Your task to perform on an android device: open sync settings in chrome Image 0: 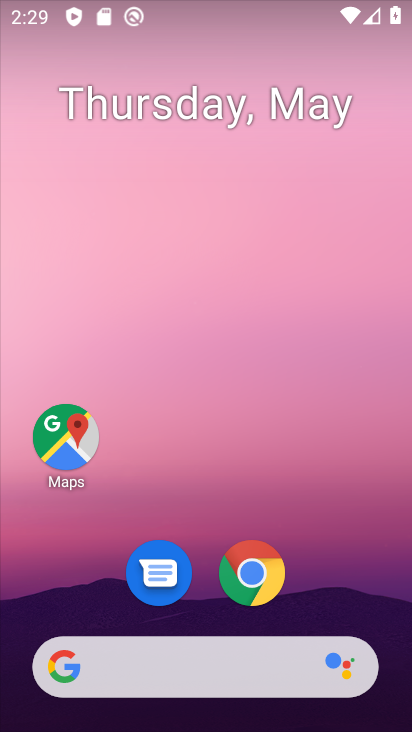
Step 0: click (249, 577)
Your task to perform on an android device: open sync settings in chrome Image 1: 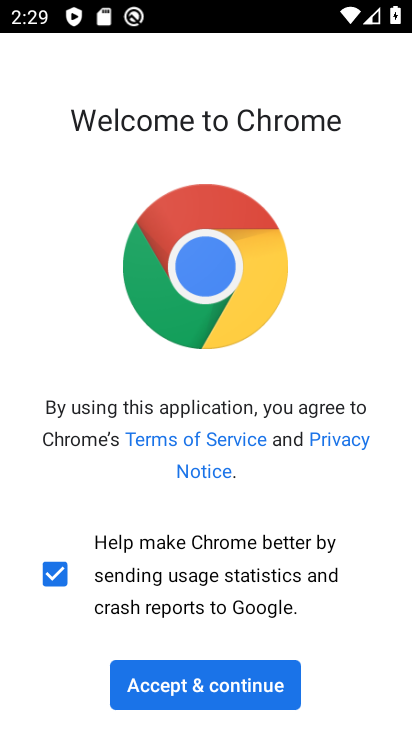
Step 1: click (224, 682)
Your task to perform on an android device: open sync settings in chrome Image 2: 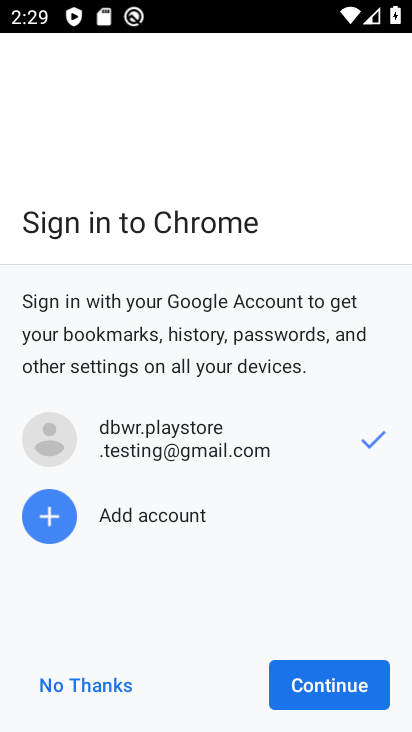
Step 2: click (337, 693)
Your task to perform on an android device: open sync settings in chrome Image 3: 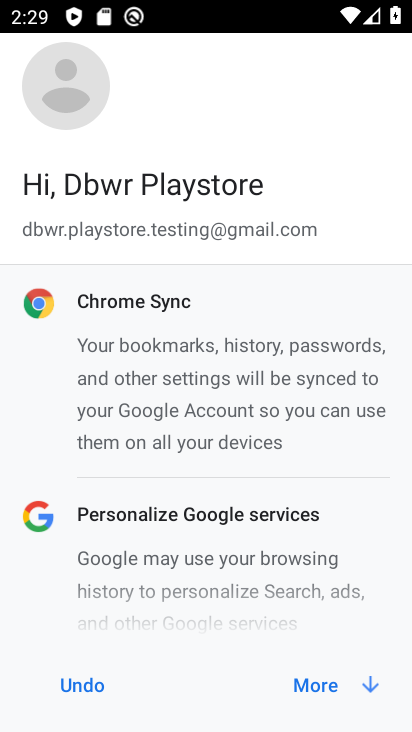
Step 3: click (337, 693)
Your task to perform on an android device: open sync settings in chrome Image 4: 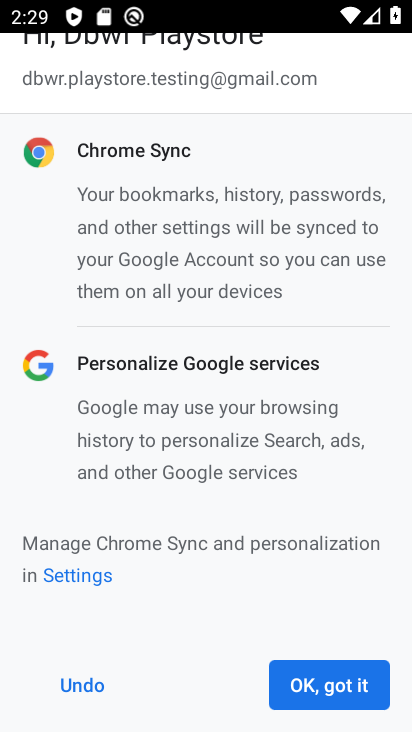
Step 4: click (337, 693)
Your task to perform on an android device: open sync settings in chrome Image 5: 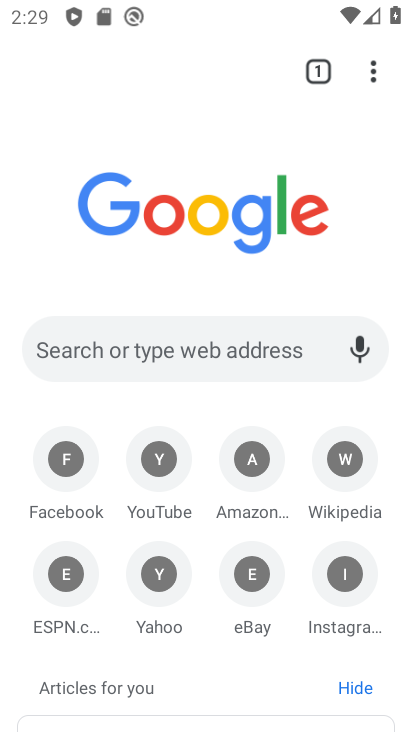
Step 5: click (372, 75)
Your task to perform on an android device: open sync settings in chrome Image 6: 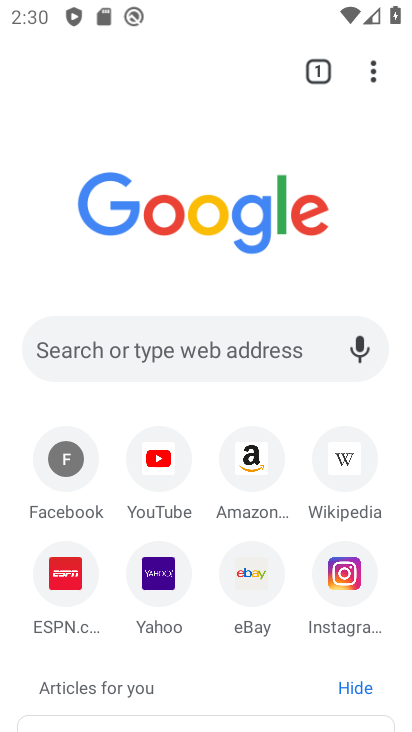
Step 6: click (372, 71)
Your task to perform on an android device: open sync settings in chrome Image 7: 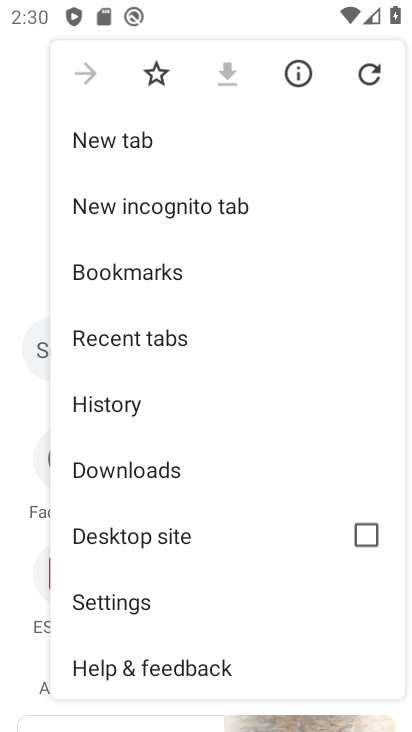
Step 7: click (98, 606)
Your task to perform on an android device: open sync settings in chrome Image 8: 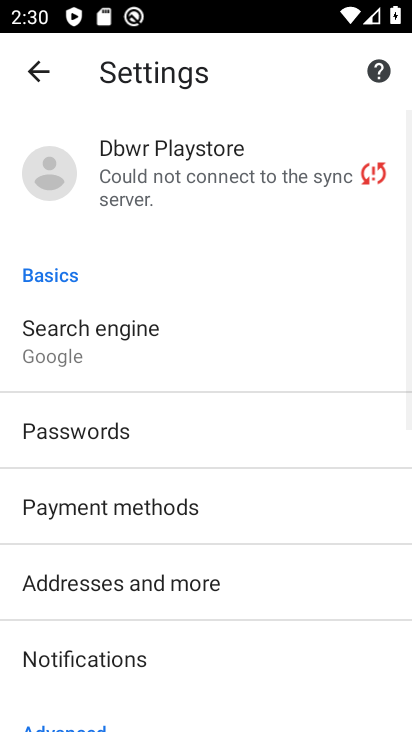
Step 8: click (190, 177)
Your task to perform on an android device: open sync settings in chrome Image 9: 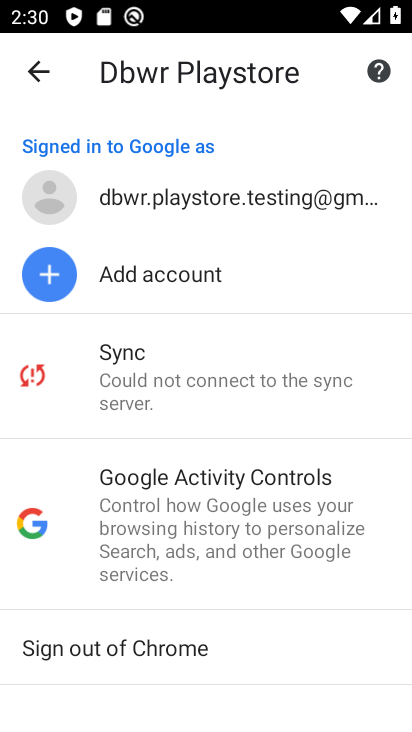
Step 9: click (156, 390)
Your task to perform on an android device: open sync settings in chrome Image 10: 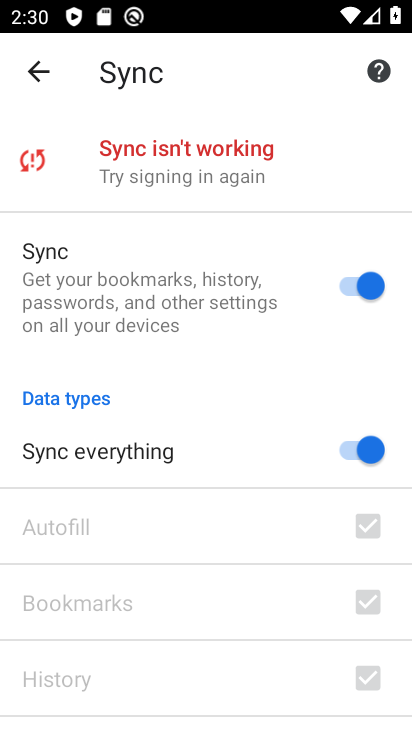
Step 10: task complete